Your task to perform on an android device: turn pop-ups on in chrome Image 0: 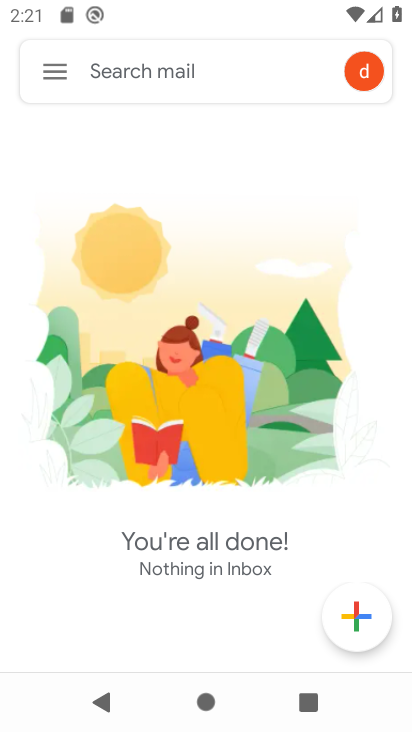
Step 0: press home button
Your task to perform on an android device: turn pop-ups on in chrome Image 1: 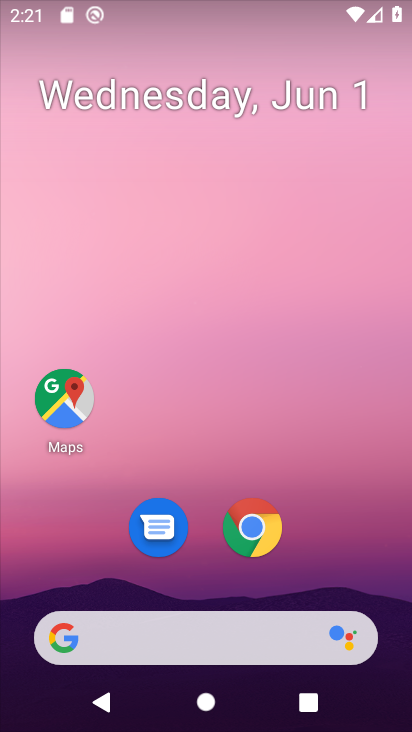
Step 1: click (259, 541)
Your task to perform on an android device: turn pop-ups on in chrome Image 2: 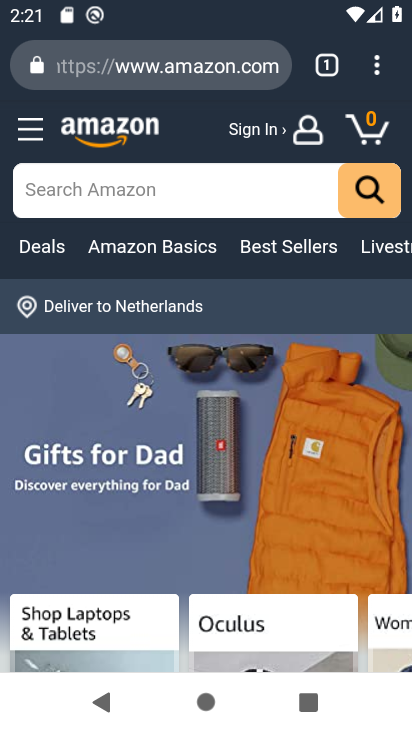
Step 2: click (383, 74)
Your task to perform on an android device: turn pop-ups on in chrome Image 3: 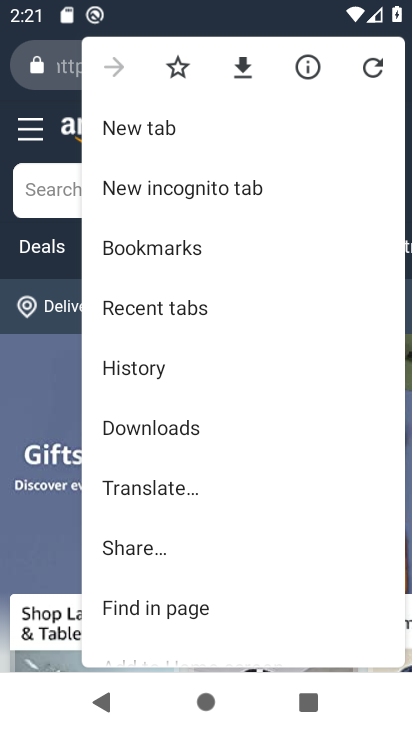
Step 3: drag from (158, 662) to (270, 92)
Your task to perform on an android device: turn pop-ups on in chrome Image 4: 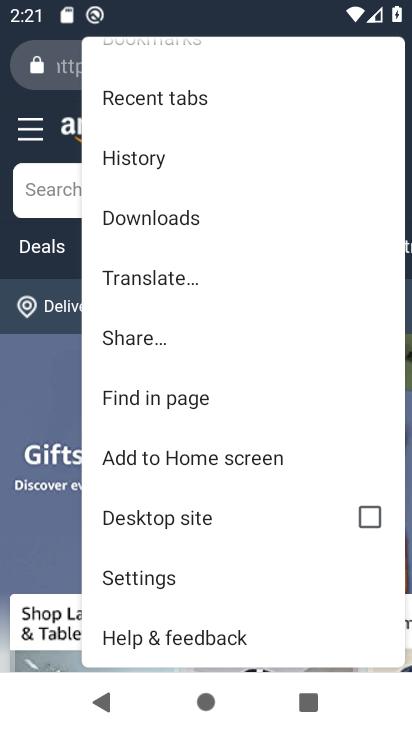
Step 4: click (164, 590)
Your task to perform on an android device: turn pop-ups on in chrome Image 5: 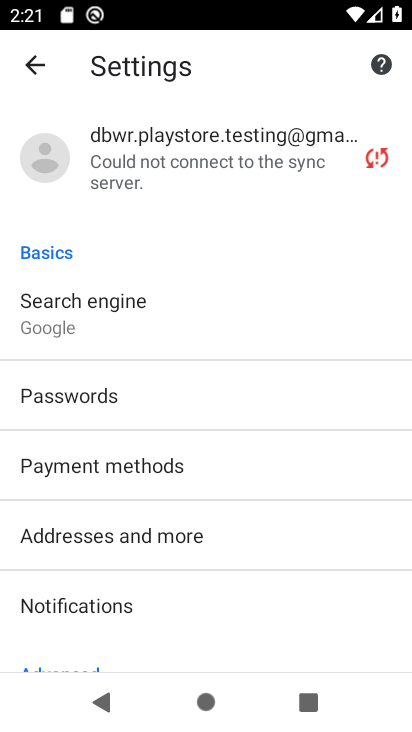
Step 5: drag from (212, 532) to (221, 112)
Your task to perform on an android device: turn pop-ups on in chrome Image 6: 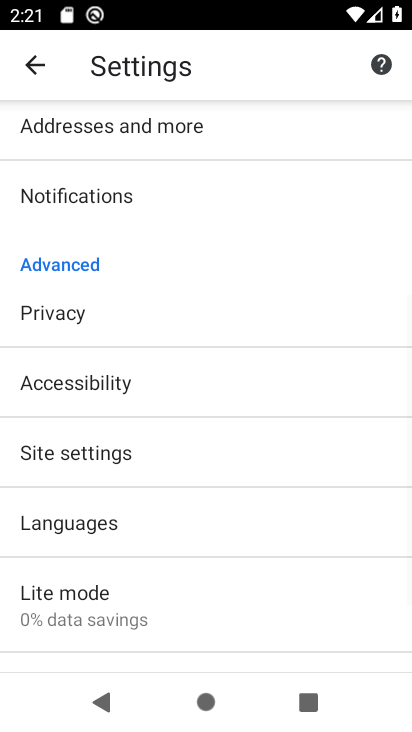
Step 6: click (83, 453)
Your task to perform on an android device: turn pop-ups on in chrome Image 7: 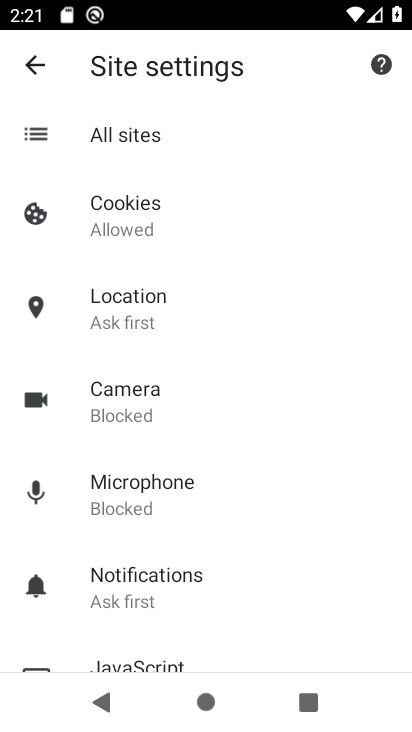
Step 7: drag from (149, 502) to (191, 167)
Your task to perform on an android device: turn pop-ups on in chrome Image 8: 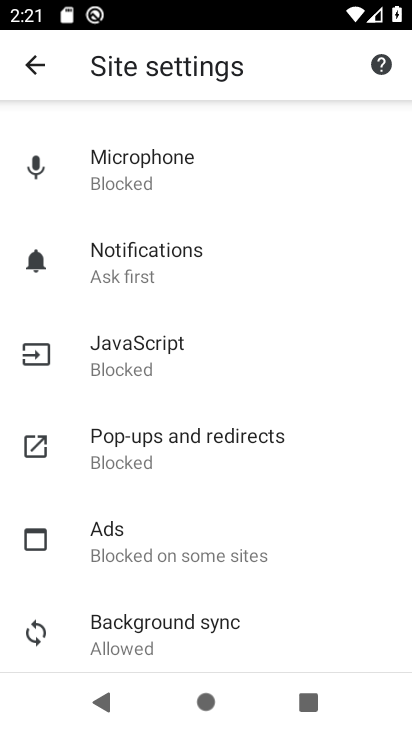
Step 8: click (185, 449)
Your task to perform on an android device: turn pop-ups on in chrome Image 9: 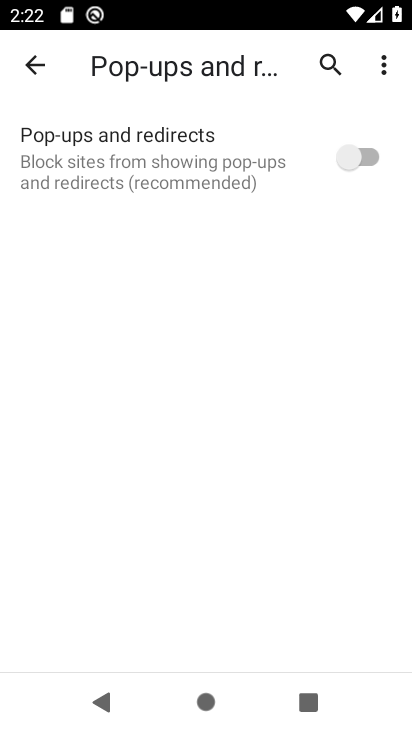
Step 9: click (385, 154)
Your task to perform on an android device: turn pop-ups on in chrome Image 10: 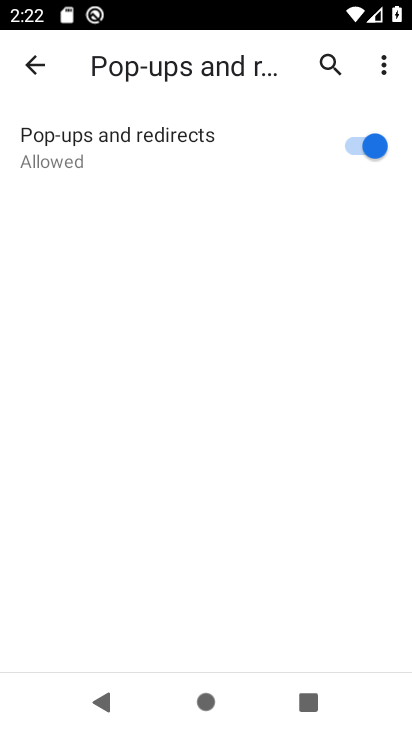
Step 10: task complete